Your task to perform on an android device: change alarm snooze length Image 0: 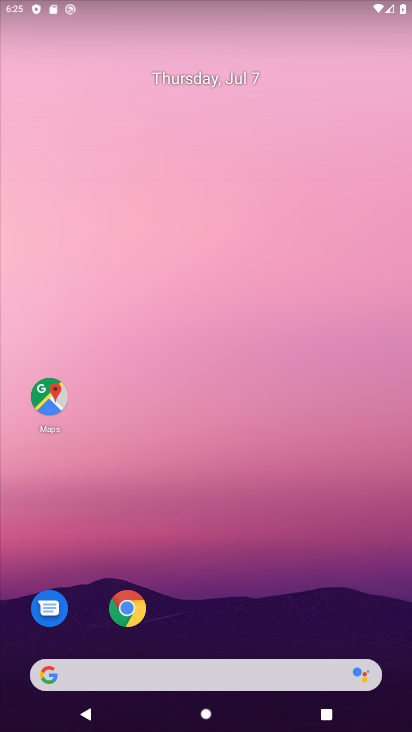
Step 0: drag from (333, 610) to (314, 7)
Your task to perform on an android device: change alarm snooze length Image 1: 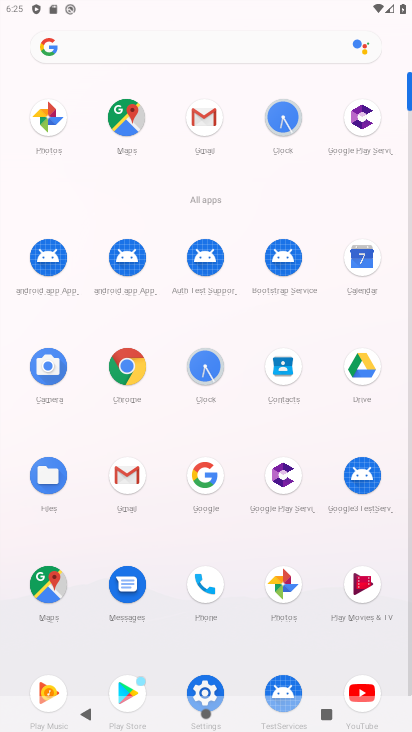
Step 1: click (200, 387)
Your task to perform on an android device: change alarm snooze length Image 2: 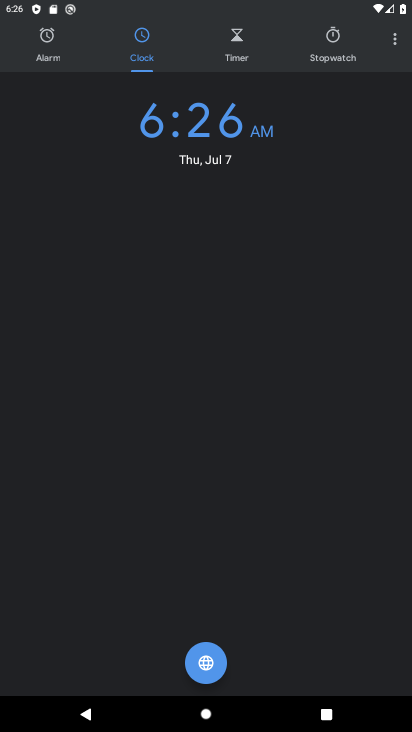
Step 2: click (56, 43)
Your task to perform on an android device: change alarm snooze length Image 3: 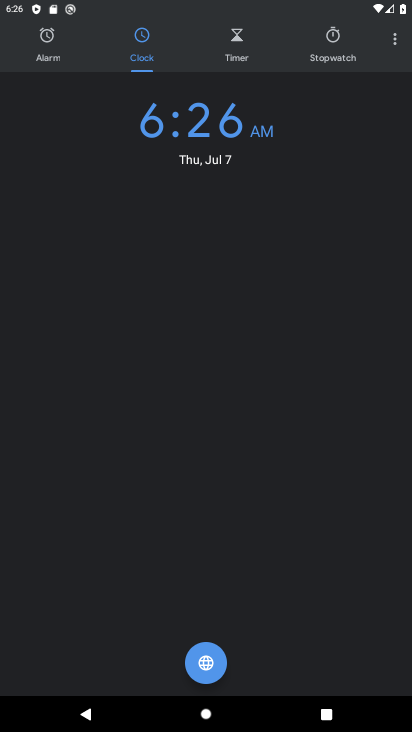
Step 3: click (57, 64)
Your task to perform on an android device: change alarm snooze length Image 4: 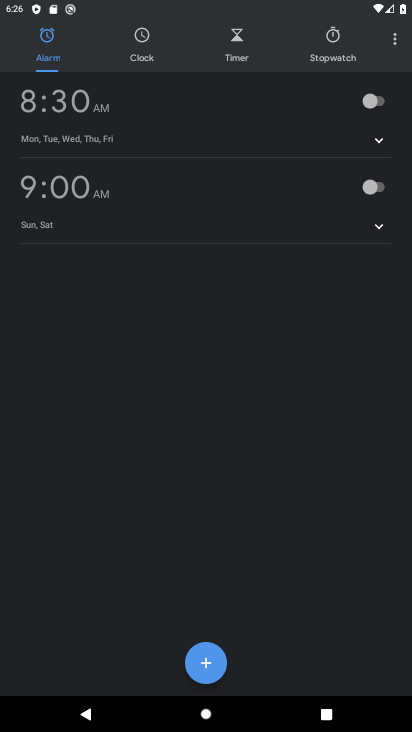
Step 4: task complete